Your task to perform on an android device: toggle show notifications on the lock screen Image 0: 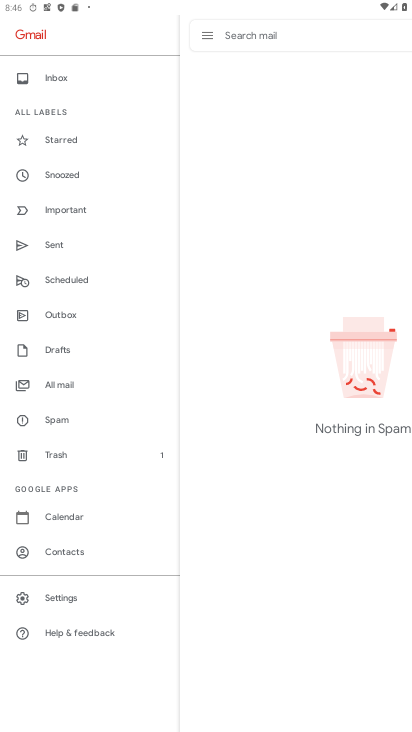
Step 0: press home button
Your task to perform on an android device: toggle show notifications on the lock screen Image 1: 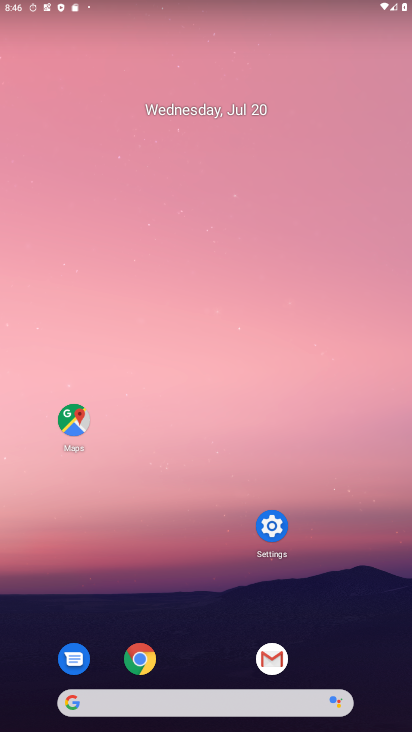
Step 1: click (264, 525)
Your task to perform on an android device: toggle show notifications on the lock screen Image 2: 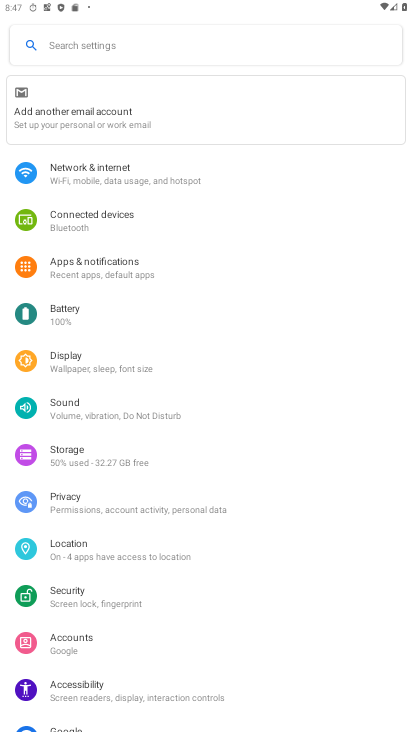
Step 2: click (96, 43)
Your task to perform on an android device: toggle show notifications on the lock screen Image 3: 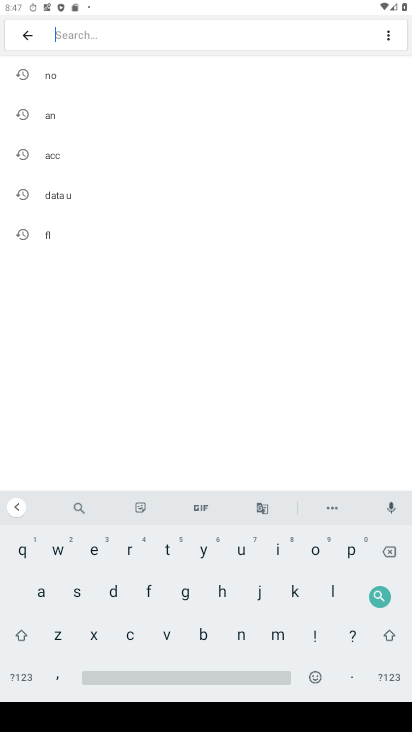
Step 3: click (57, 70)
Your task to perform on an android device: toggle show notifications on the lock screen Image 4: 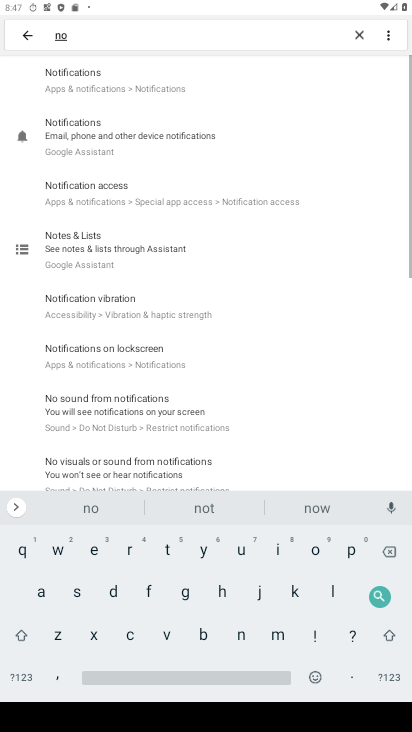
Step 4: click (82, 77)
Your task to perform on an android device: toggle show notifications on the lock screen Image 5: 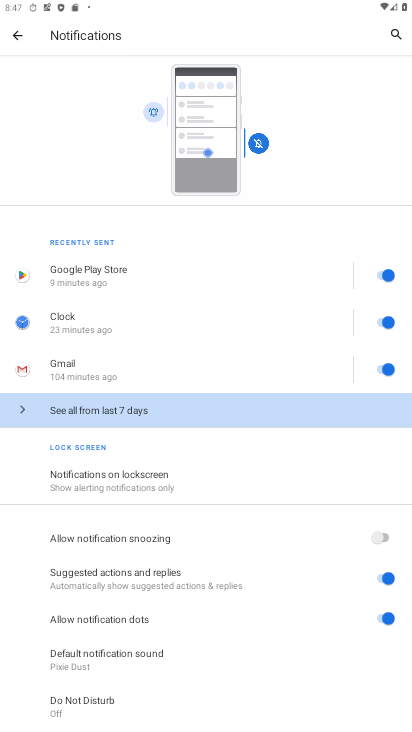
Step 5: click (183, 473)
Your task to perform on an android device: toggle show notifications on the lock screen Image 6: 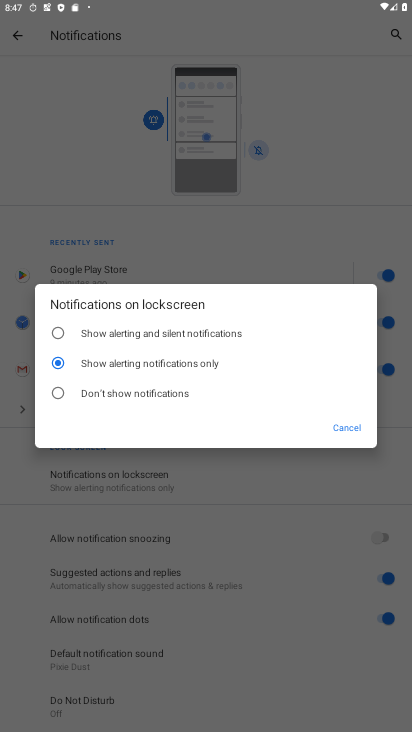
Step 6: click (152, 331)
Your task to perform on an android device: toggle show notifications on the lock screen Image 7: 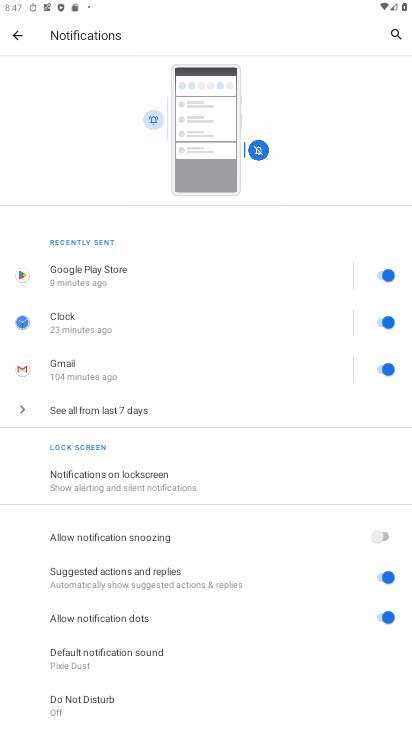
Step 7: task complete